Your task to perform on an android device: install app "Upside-Cash back on gas & food" Image 0: 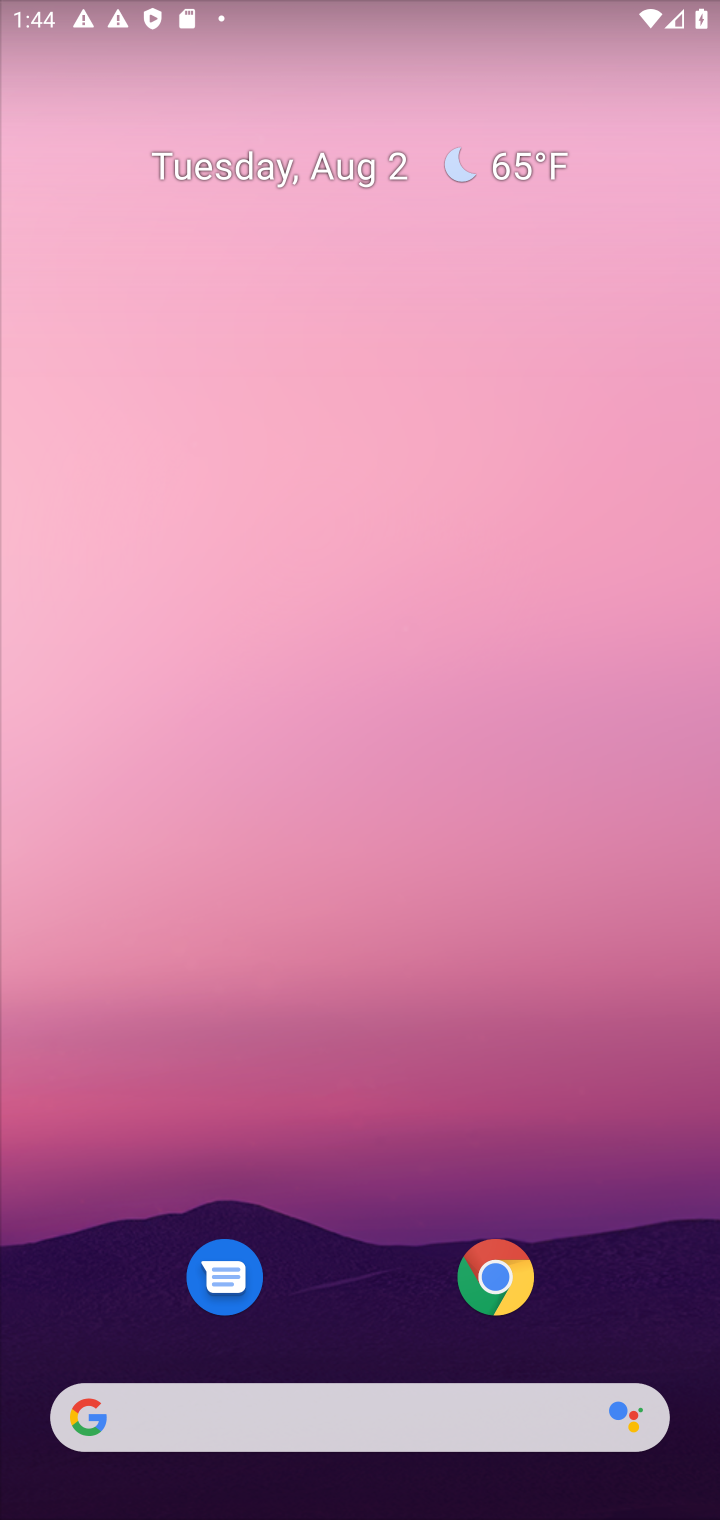
Step 0: drag from (361, 1384) to (474, 675)
Your task to perform on an android device: install app "Upside-Cash back on gas & food" Image 1: 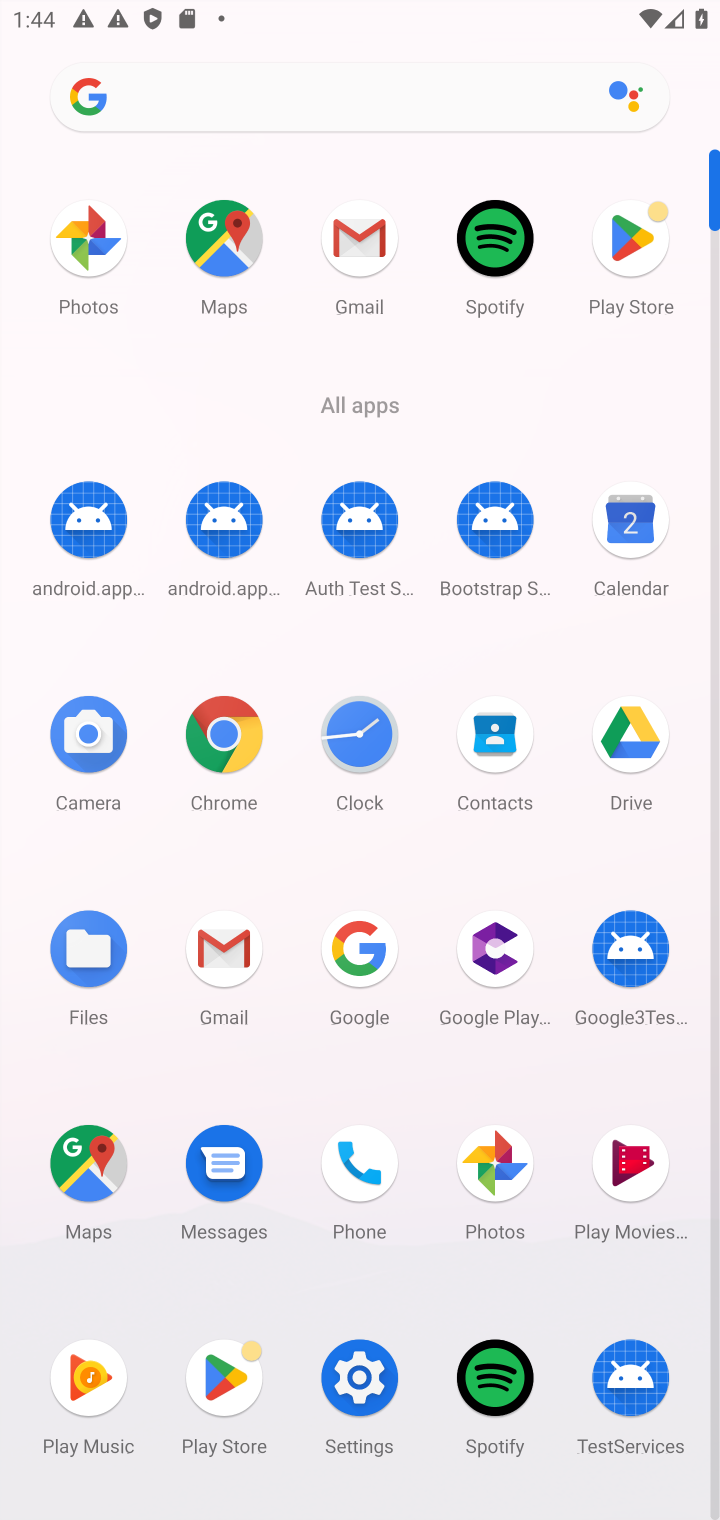
Step 1: click (631, 249)
Your task to perform on an android device: install app "Upside-Cash back on gas & food" Image 2: 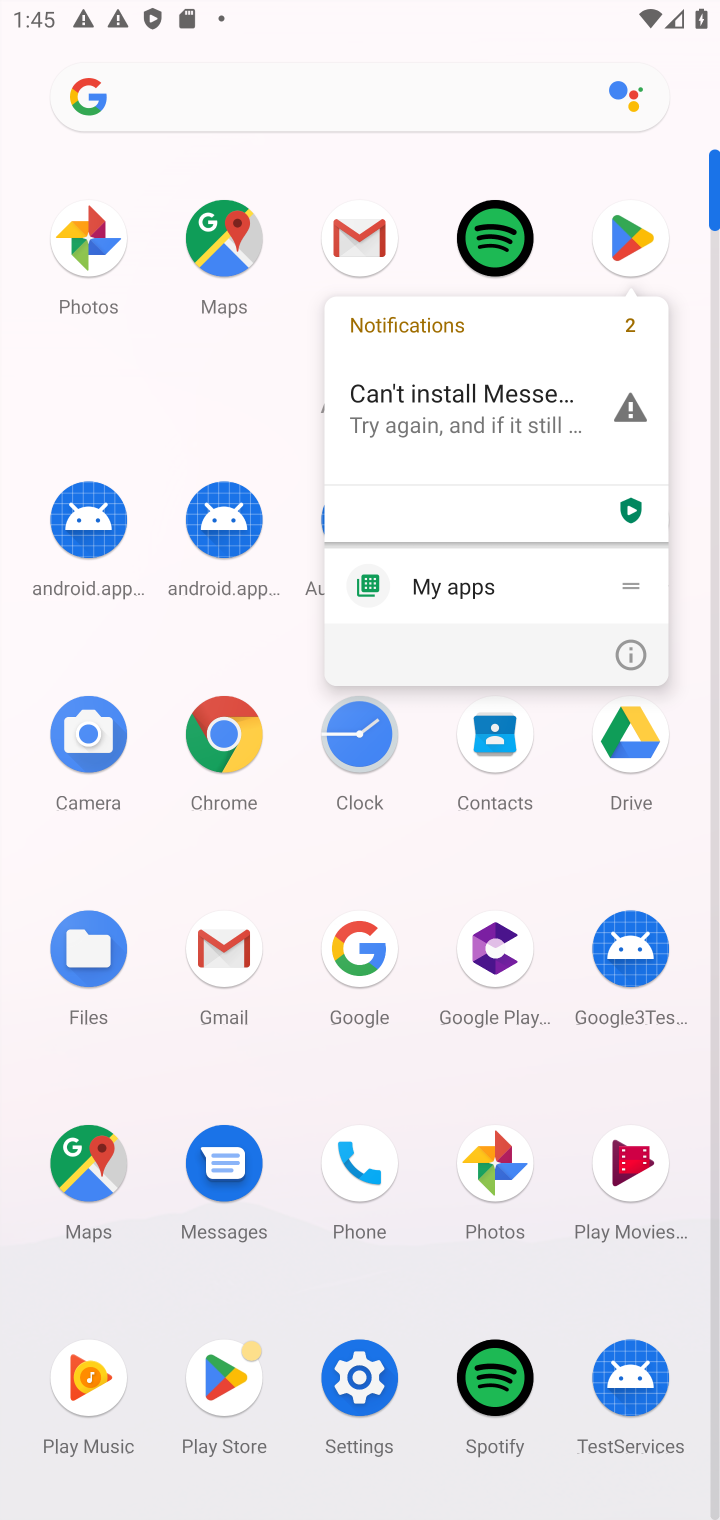
Step 2: click (613, 231)
Your task to perform on an android device: install app "Upside-Cash back on gas & food" Image 3: 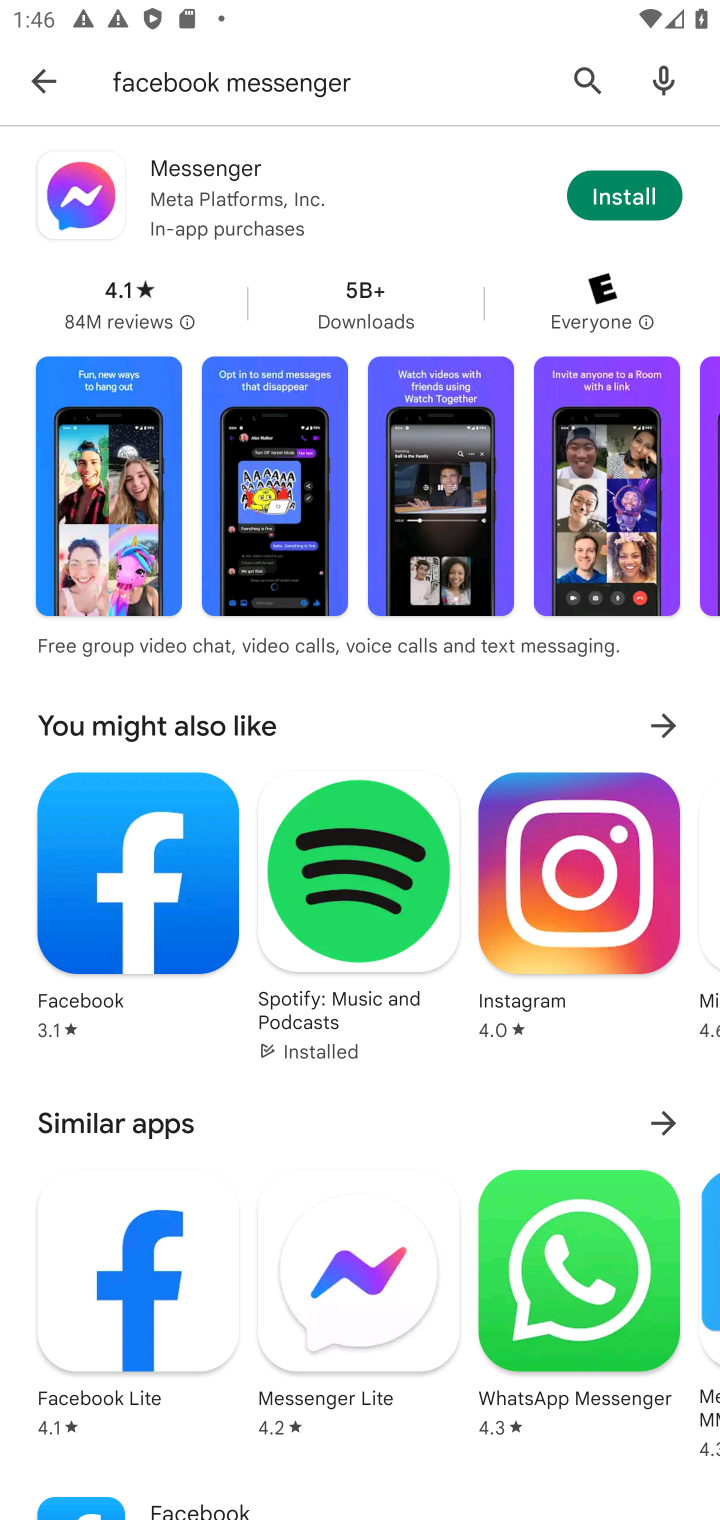
Step 3: click (577, 61)
Your task to perform on an android device: install app "Upside-Cash back on gas & food" Image 4: 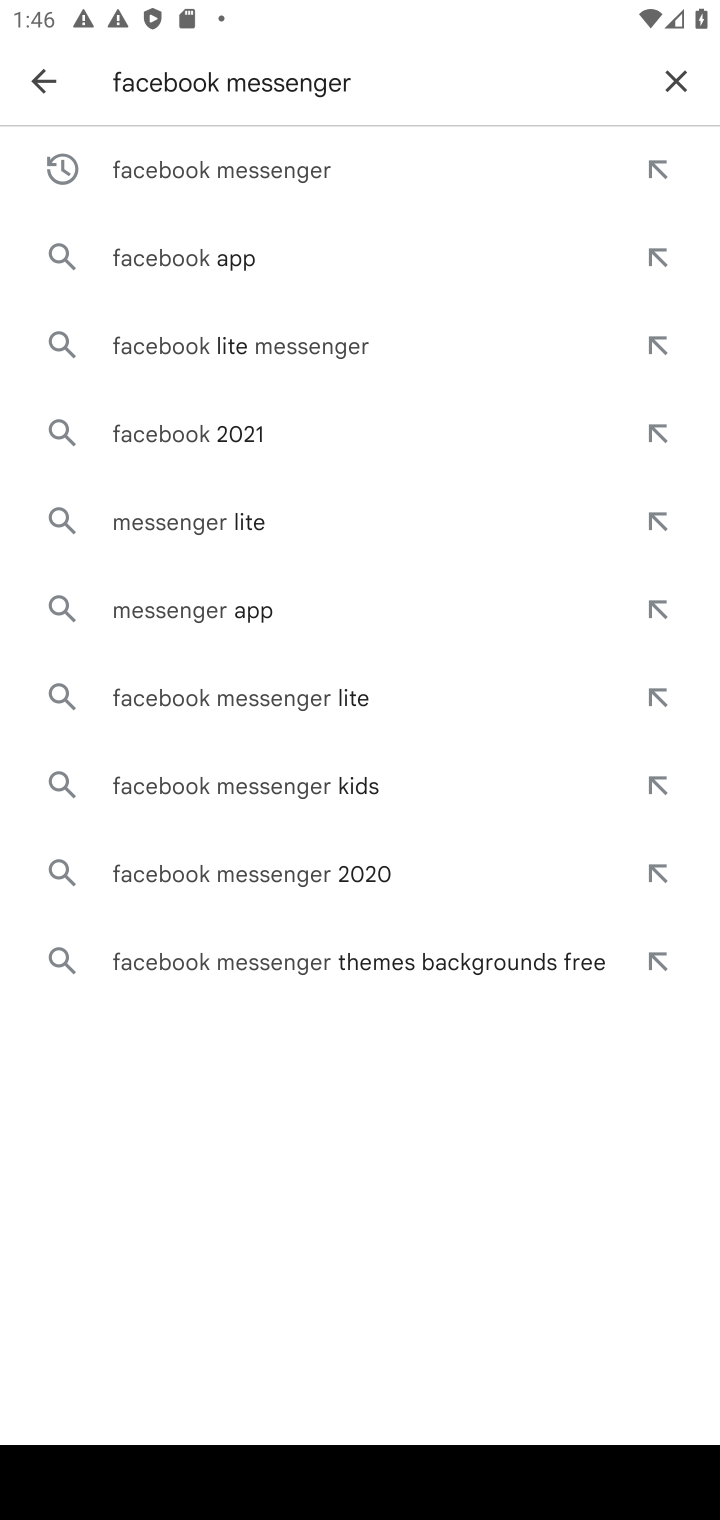
Step 4: click (681, 76)
Your task to perform on an android device: install app "Upside-Cash back on gas & food" Image 5: 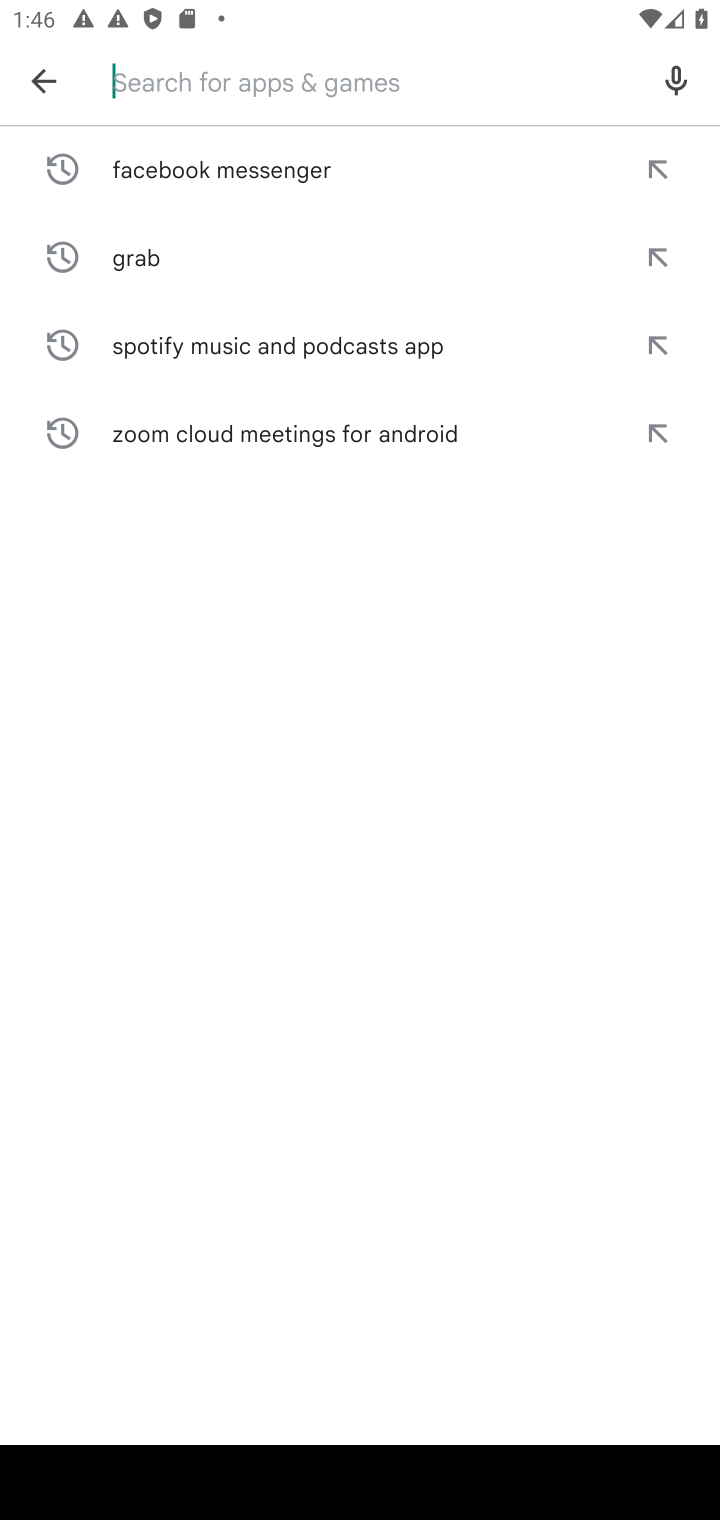
Step 5: type "Upside-Cash back on gas & food"
Your task to perform on an android device: install app "Upside-Cash back on gas & food" Image 6: 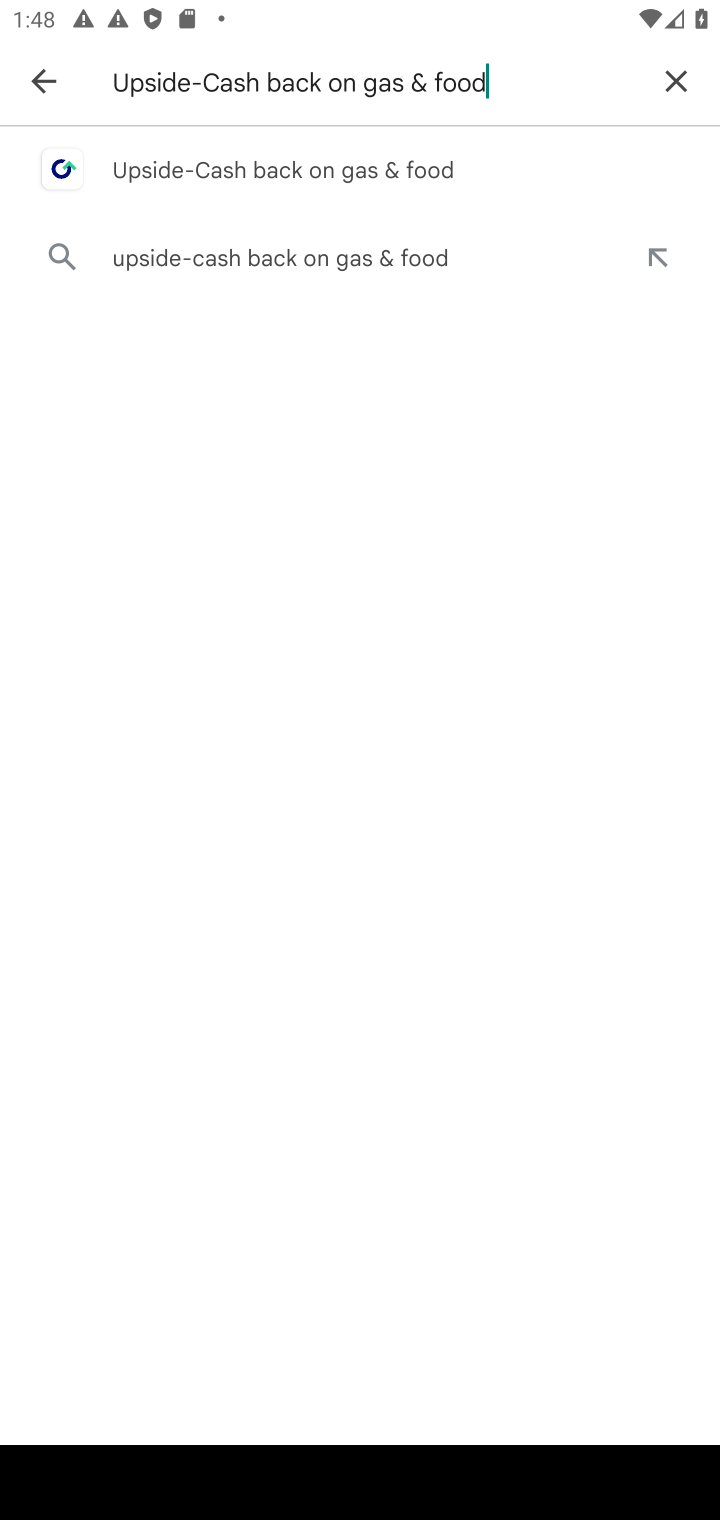
Step 6: click (276, 145)
Your task to perform on an android device: install app "Upside-Cash back on gas & food" Image 7: 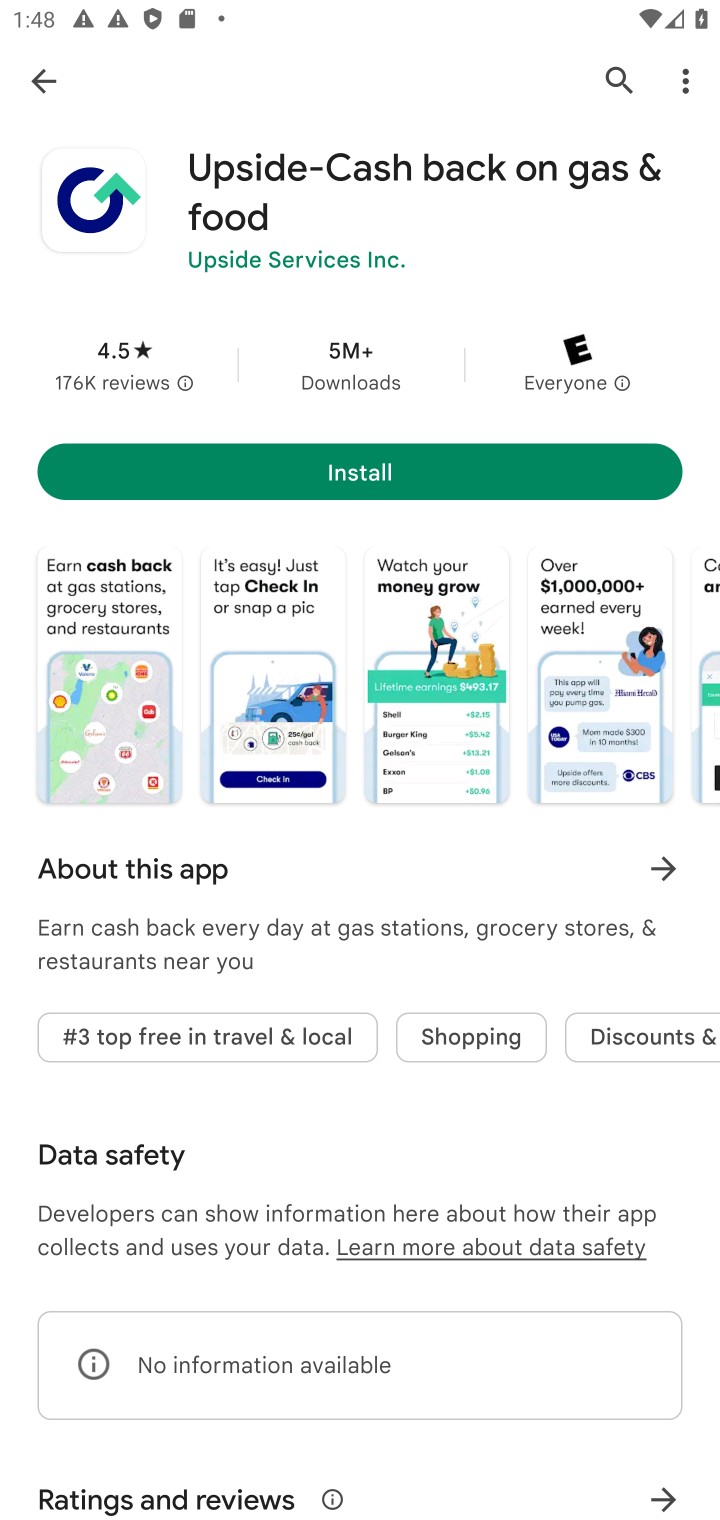
Step 7: click (433, 462)
Your task to perform on an android device: install app "Upside-Cash back on gas & food" Image 8: 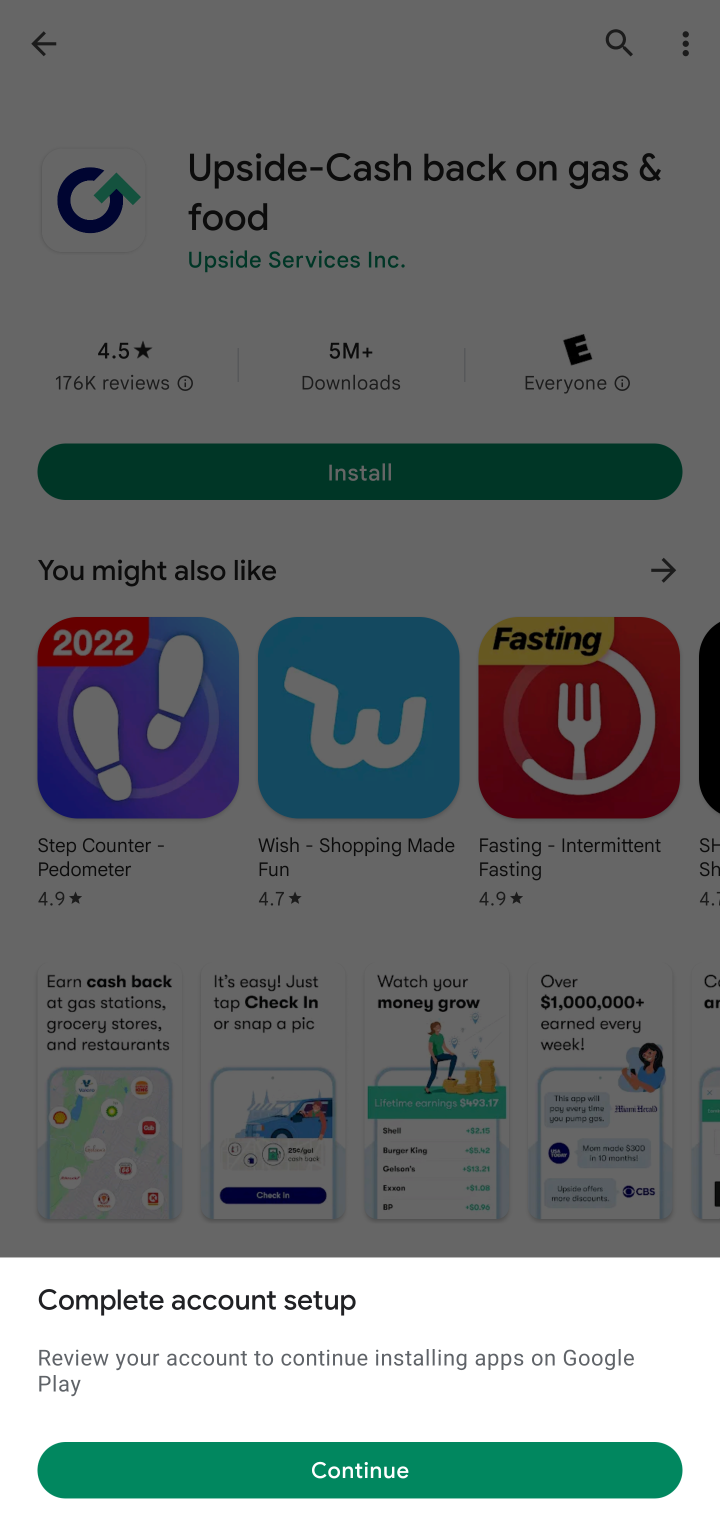
Step 8: click (287, 1485)
Your task to perform on an android device: install app "Upside-Cash back on gas & food" Image 9: 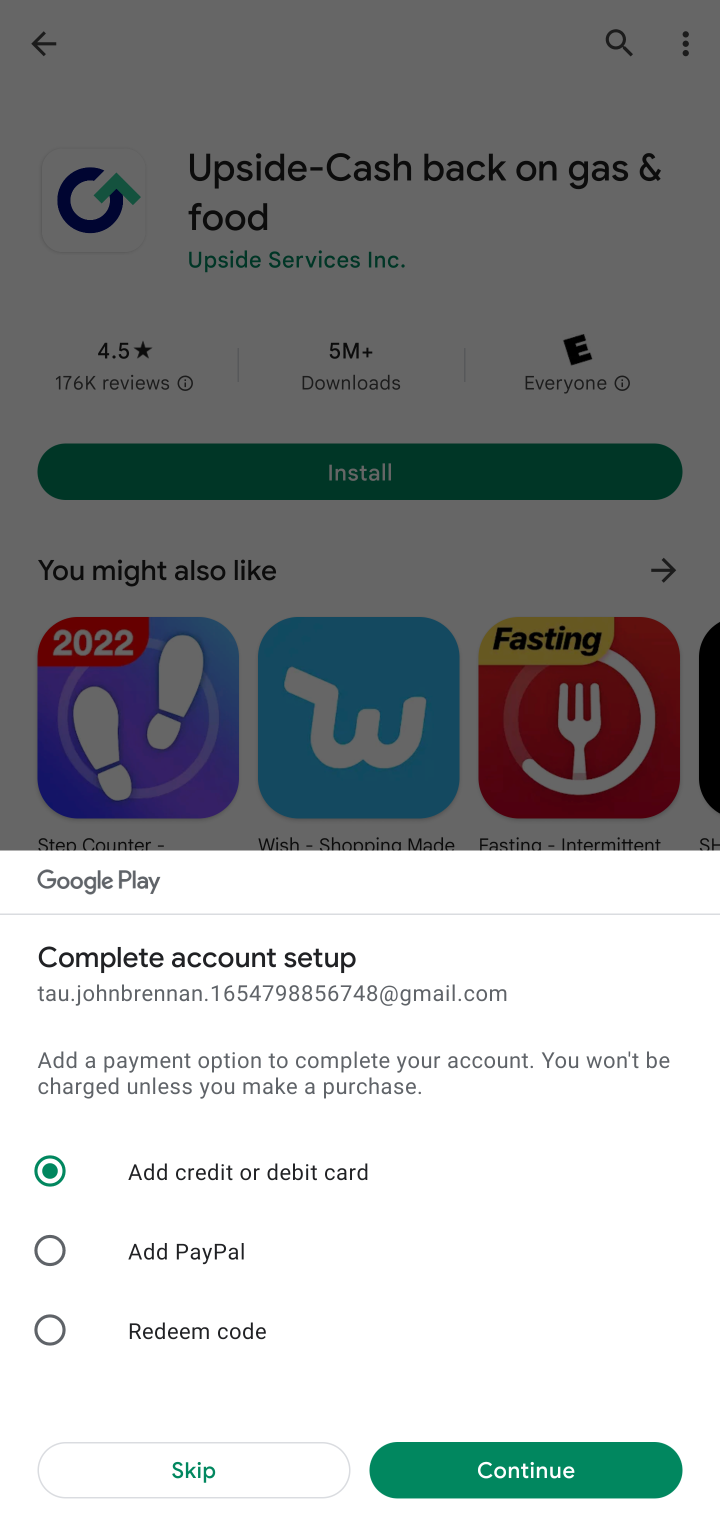
Step 9: click (210, 1469)
Your task to perform on an android device: install app "Upside-Cash back on gas & food" Image 10: 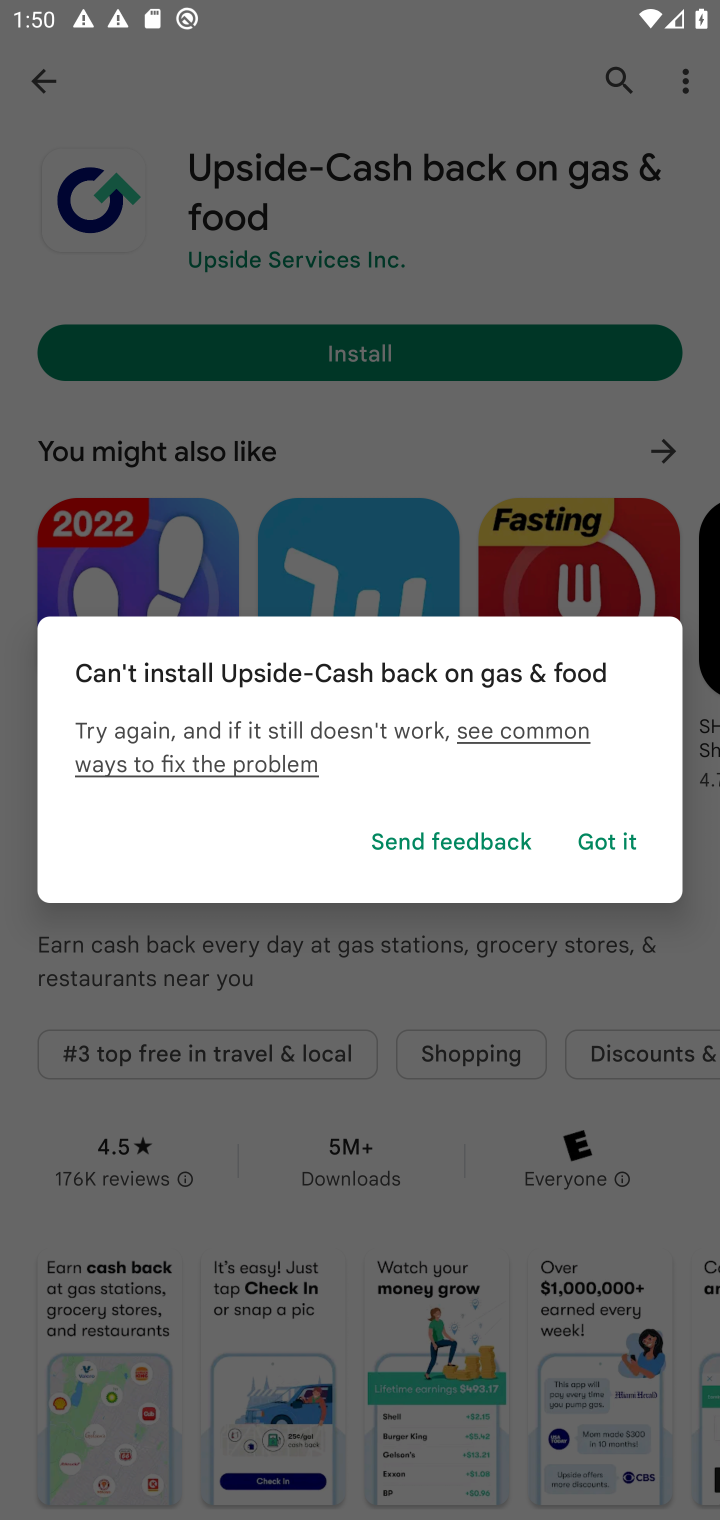
Step 10: click (597, 830)
Your task to perform on an android device: install app "Upside-Cash back on gas & food" Image 11: 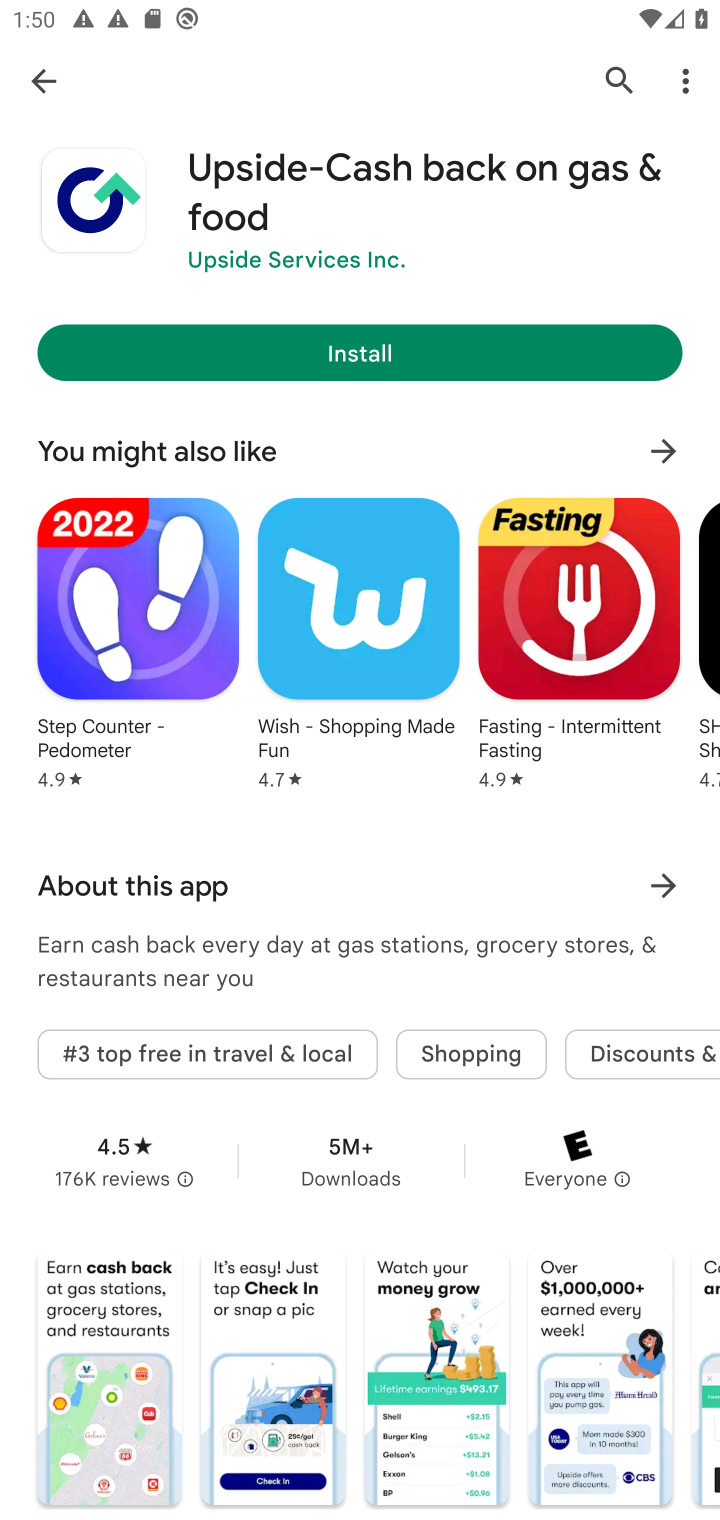
Step 11: click (399, 342)
Your task to perform on an android device: install app "Upside-Cash back on gas & food" Image 12: 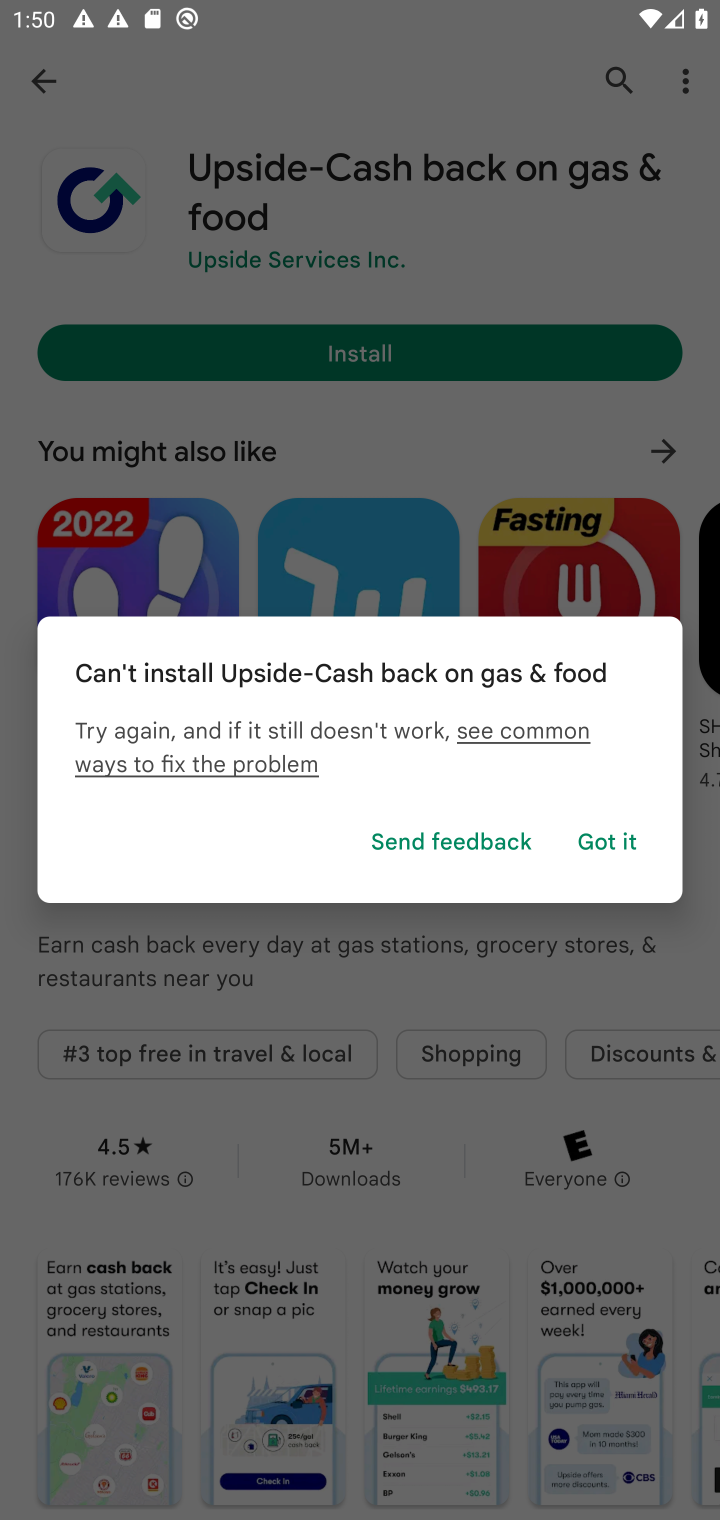
Step 12: click (577, 853)
Your task to perform on an android device: install app "Upside-Cash back on gas & food" Image 13: 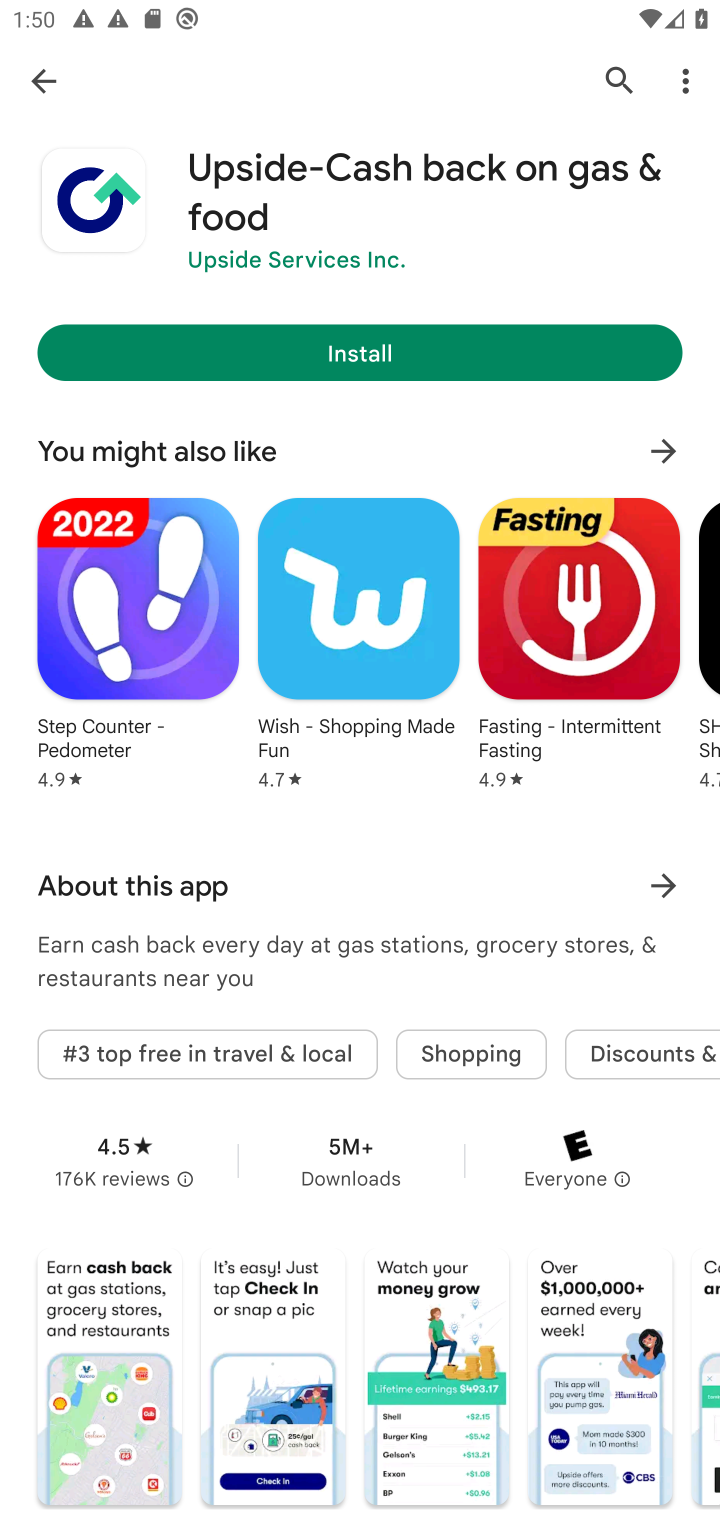
Step 13: task complete